Your task to perform on an android device: Open my contact list Image 0: 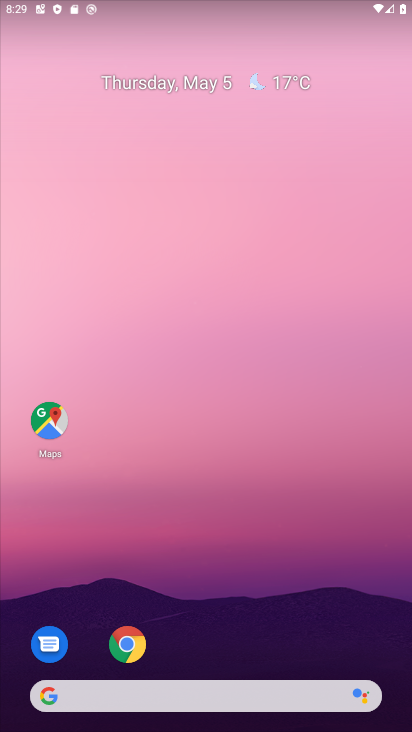
Step 0: drag from (236, 634) to (237, 288)
Your task to perform on an android device: Open my contact list Image 1: 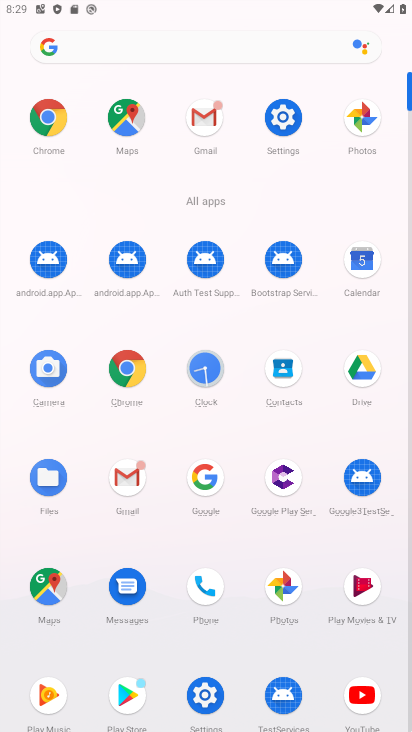
Step 1: click (291, 386)
Your task to perform on an android device: Open my contact list Image 2: 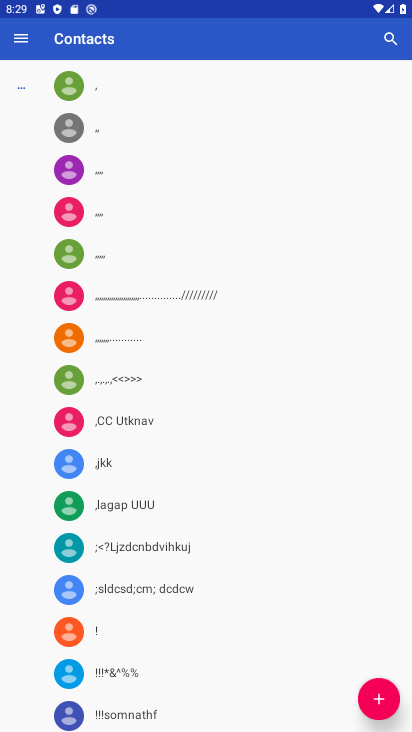
Step 2: task complete